Your task to perform on an android device: Do I have any events today? Image 0: 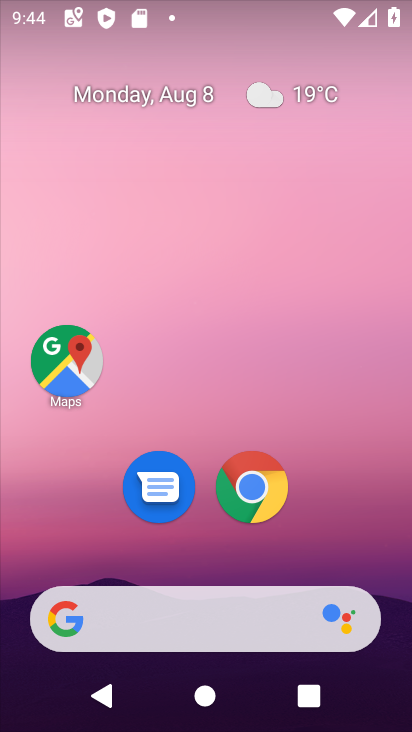
Step 0: drag from (207, 577) to (188, 7)
Your task to perform on an android device: Do I have any events today? Image 1: 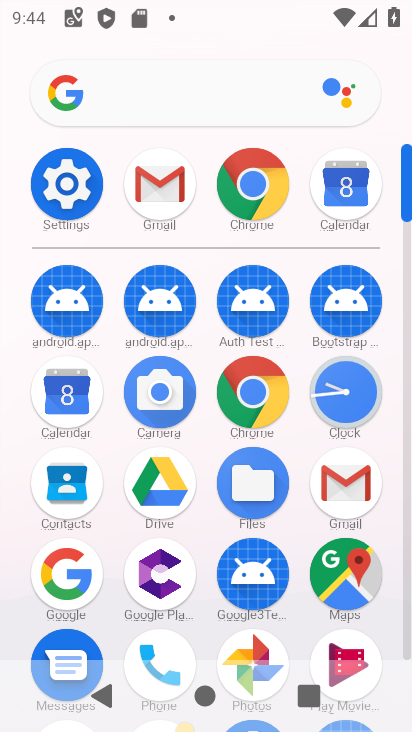
Step 1: click (77, 390)
Your task to perform on an android device: Do I have any events today? Image 2: 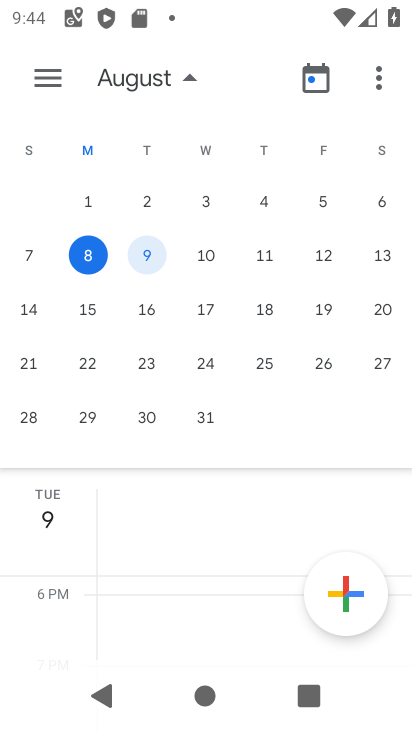
Step 2: click (91, 252)
Your task to perform on an android device: Do I have any events today? Image 3: 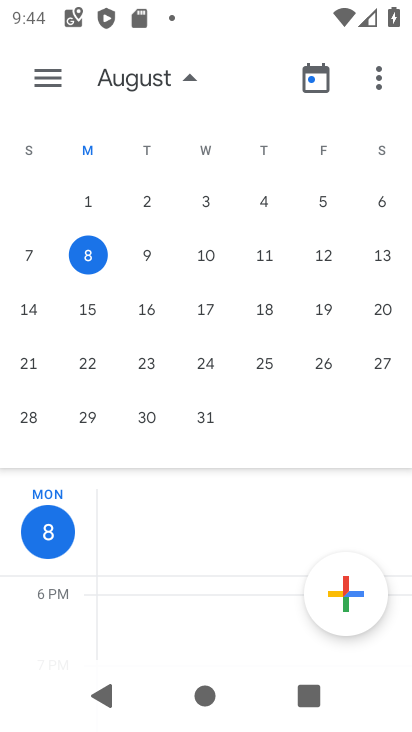
Step 3: click (91, 252)
Your task to perform on an android device: Do I have any events today? Image 4: 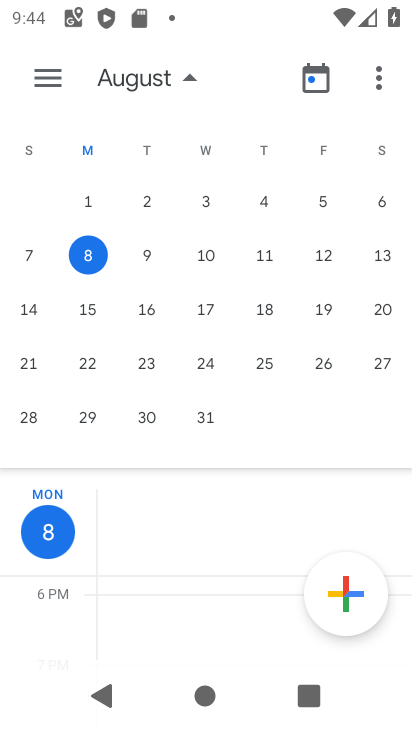
Step 4: click (91, 252)
Your task to perform on an android device: Do I have any events today? Image 5: 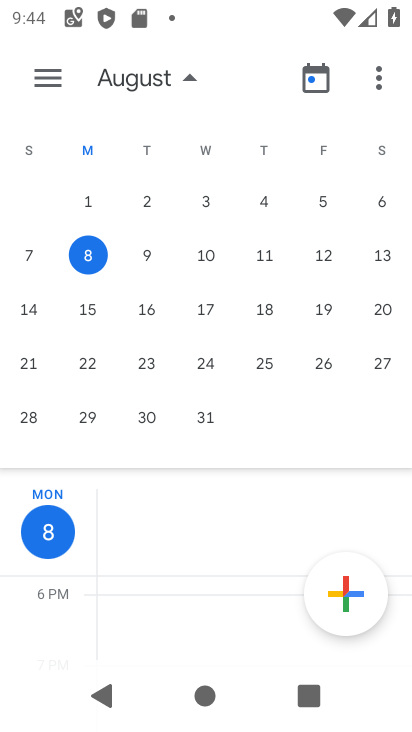
Step 5: click (48, 75)
Your task to perform on an android device: Do I have any events today? Image 6: 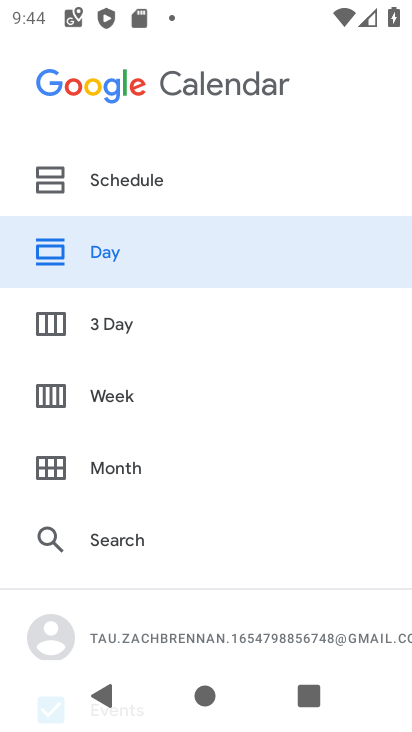
Step 6: drag from (109, 583) to (118, 316)
Your task to perform on an android device: Do I have any events today? Image 7: 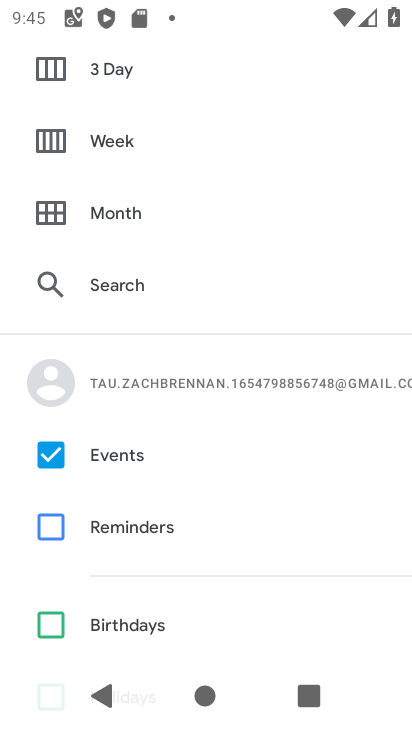
Step 7: drag from (139, 141) to (130, 482)
Your task to perform on an android device: Do I have any events today? Image 8: 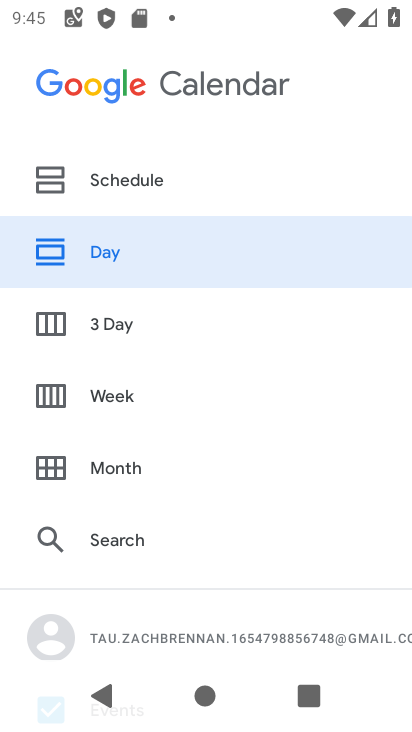
Step 8: click (137, 259)
Your task to perform on an android device: Do I have any events today? Image 9: 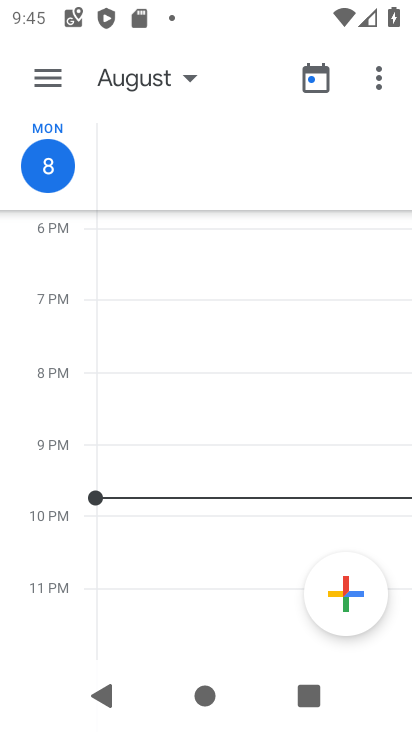
Step 9: task complete